Your task to perform on an android device: Go to battery settings Image 0: 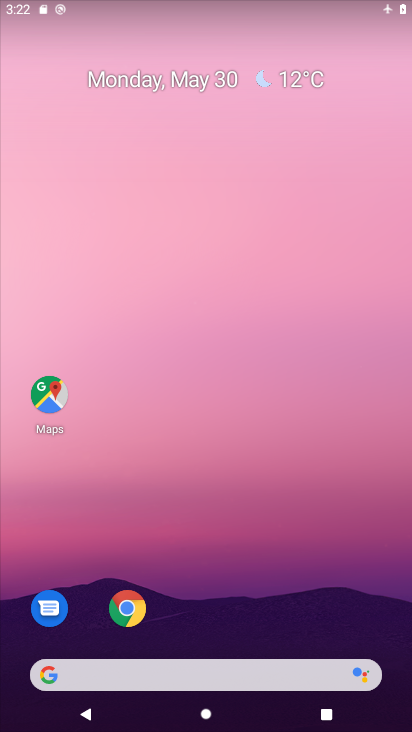
Step 0: drag from (272, 525) to (172, 18)
Your task to perform on an android device: Go to battery settings Image 1: 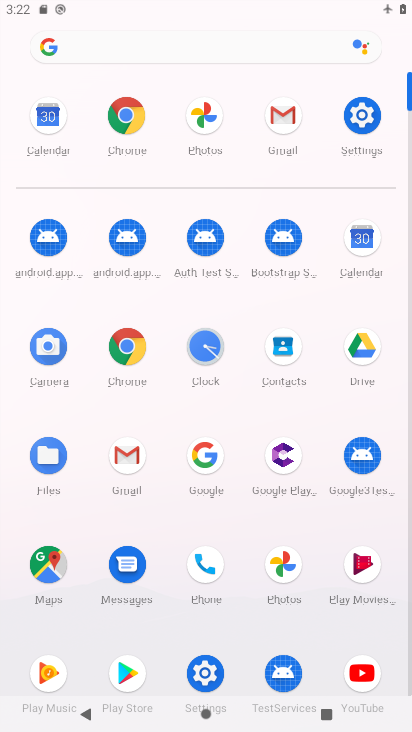
Step 1: click (363, 124)
Your task to perform on an android device: Go to battery settings Image 2: 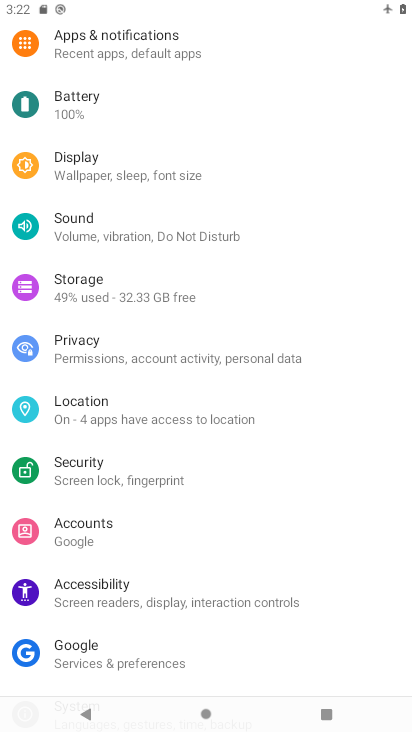
Step 2: drag from (217, 478) to (217, 121)
Your task to perform on an android device: Go to battery settings Image 3: 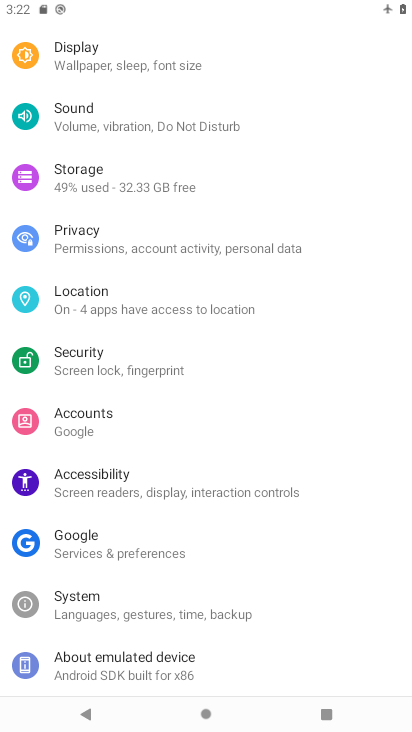
Step 3: drag from (133, 64) to (115, 680)
Your task to perform on an android device: Go to battery settings Image 4: 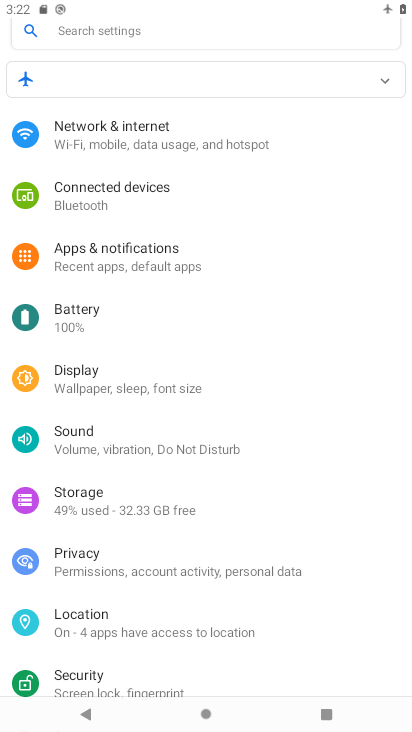
Step 4: click (114, 336)
Your task to perform on an android device: Go to battery settings Image 5: 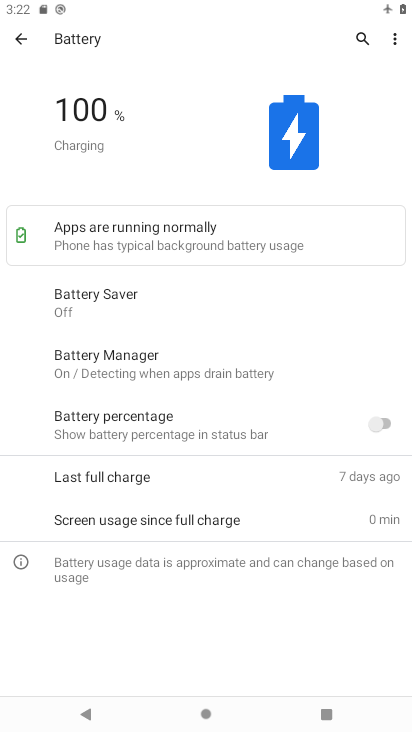
Step 5: task complete